Your task to perform on an android device: turn vacation reply on in the gmail app Image 0: 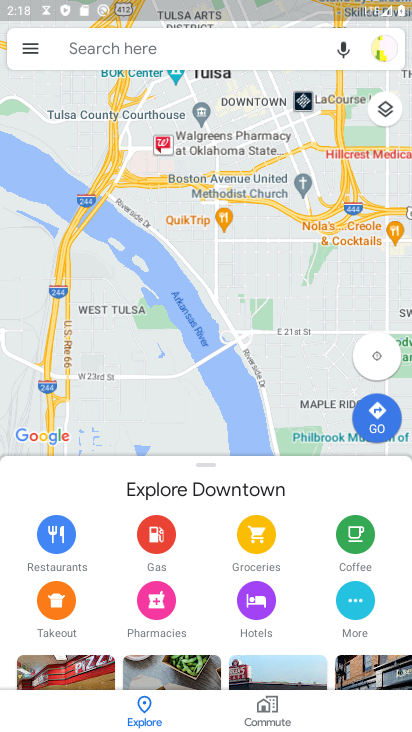
Step 0: press home button
Your task to perform on an android device: turn vacation reply on in the gmail app Image 1: 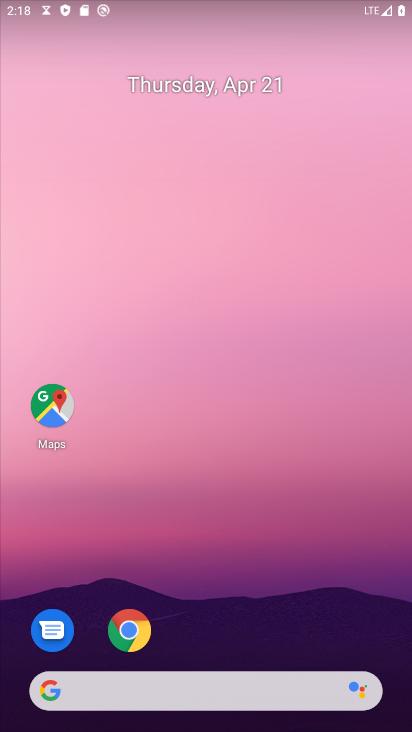
Step 1: drag from (340, 625) to (339, 23)
Your task to perform on an android device: turn vacation reply on in the gmail app Image 2: 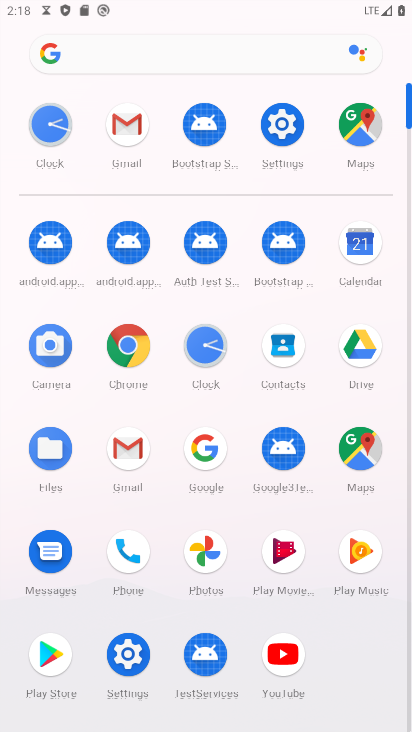
Step 2: click (125, 134)
Your task to perform on an android device: turn vacation reply on in the gmail app Image 3: 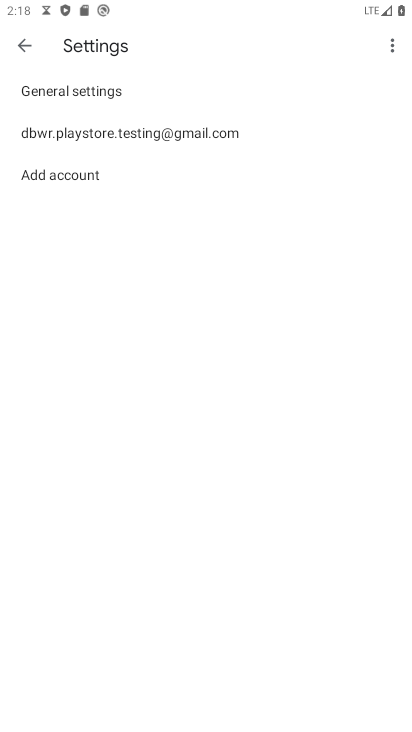
Step 3: click (61, 134)
Your task to perform on an android device: turn vacation reply on in the gmail app Image 4: 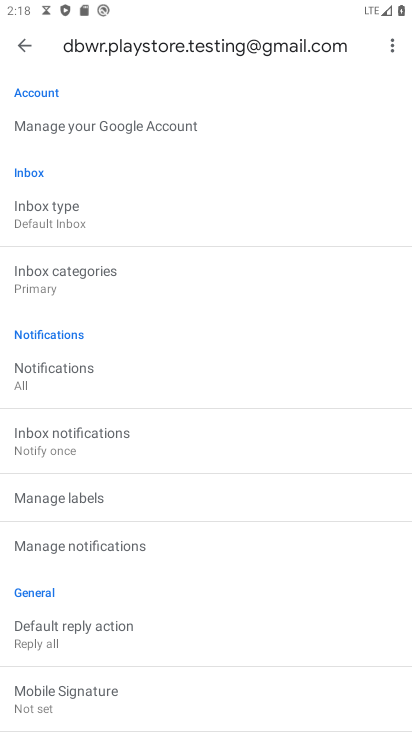
Step 4: drag from (170, 686) to (166, 185)
Your task to perform on an android device: turn vacation reply on in the gmail app Image 5: 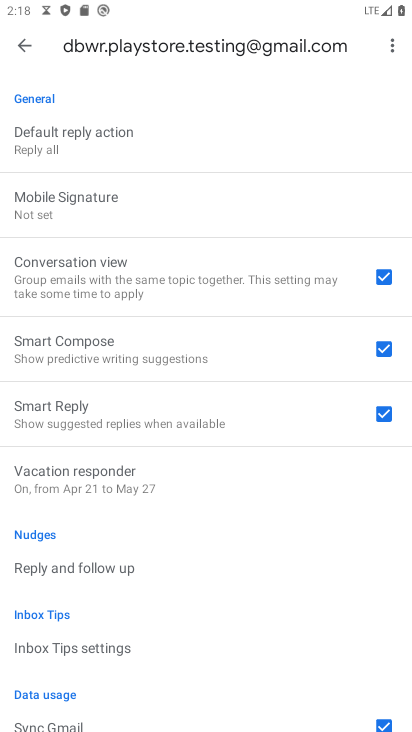
Step 5: click (67, 478)
Your task to perform on an android device: turn vacation reply on in the gmail app Image 6: 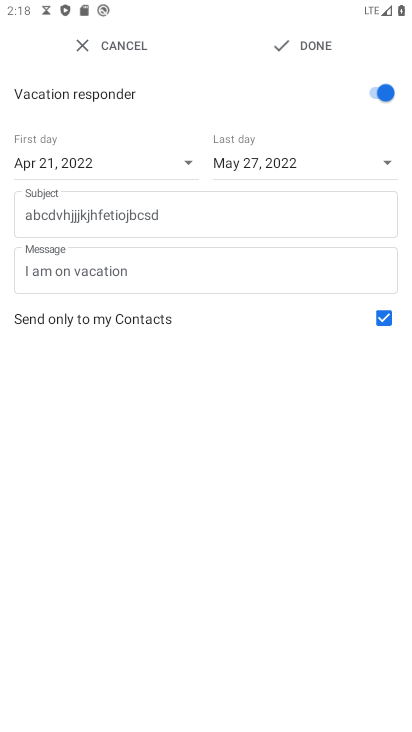
Step 6: click (306, 50)
Your task to perform on an android device: turn vacation reply on in the gmail app Image 7: 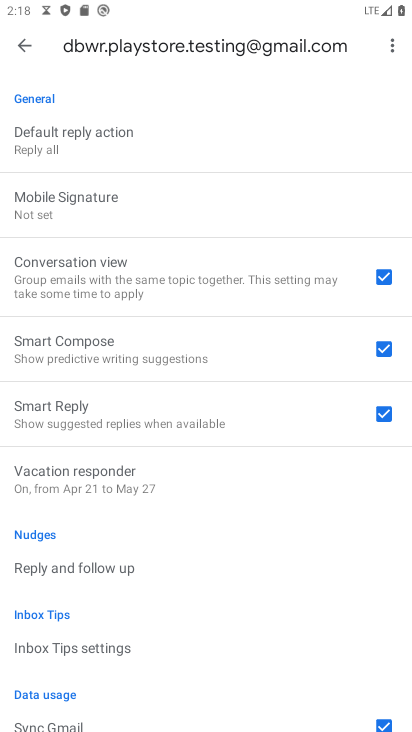
Step 7: task complete